Your task to perform on an android device: When is my next meeting? Image 0: 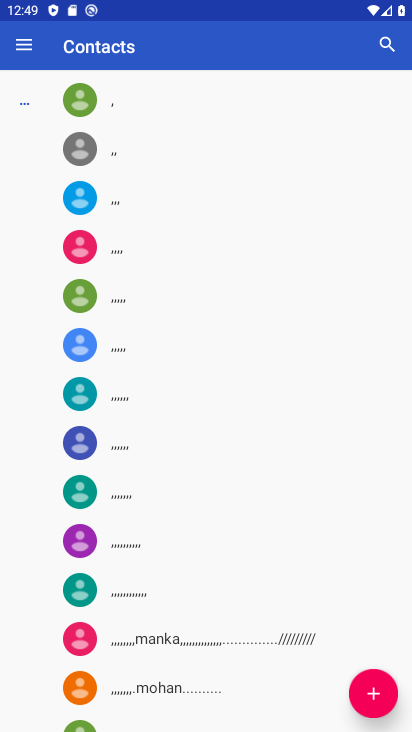
Step 0: press home button
Your task to perform on an android device: When is my next meeting? Image 1: 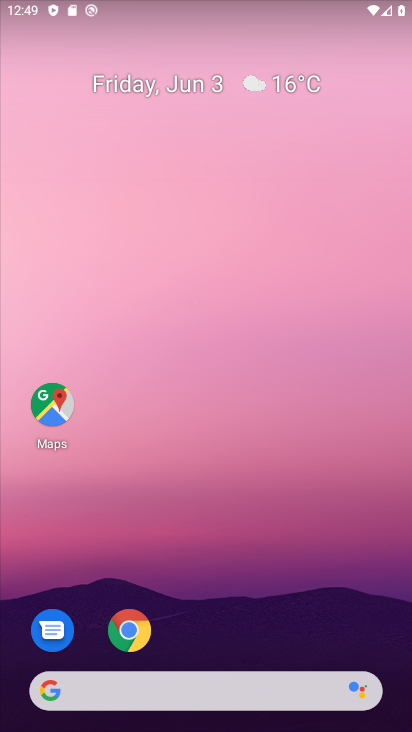
Step 1: drag from (293, 708) to (254, 196)
Your task to perform on an android device: When is my next meeting? Image 2: 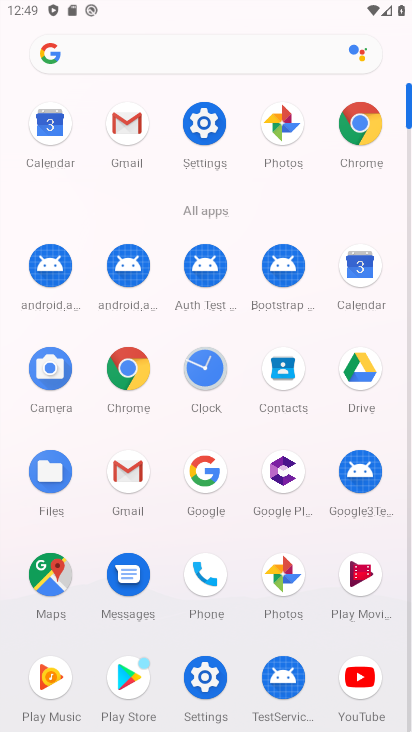
Step 2: drag from (344, 264) to (235, 481)
Your task to perform on an android device: When is my next meeting? Image 3: 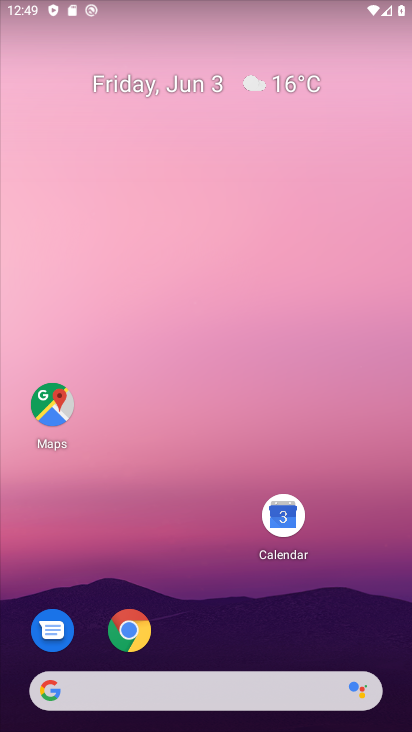
Step 3: click (296, 516)
Your task to perform on an android device: When is my next meeting? Image 4: 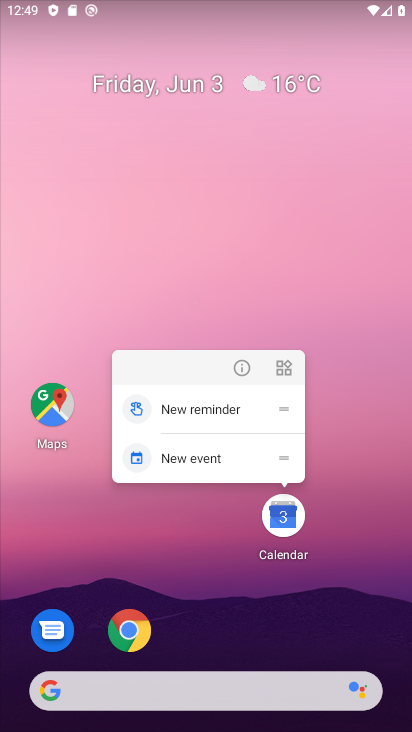
Step 4: click (279, 508)
Your task to perform on an android device: When is my next meeting? Image 5: 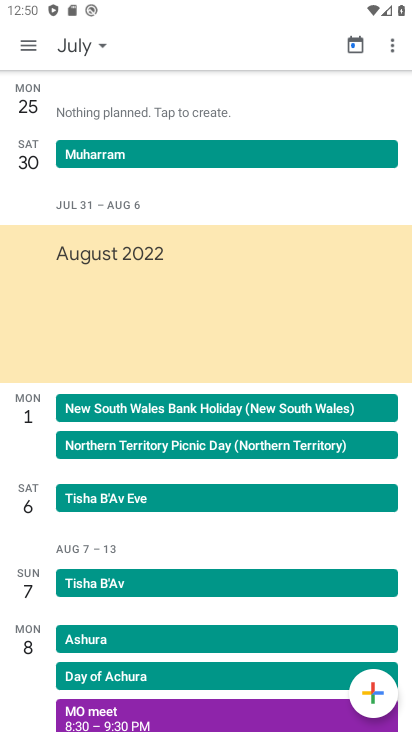
Step 5: task complete